Your task to perform on an android device: turn off wifi Image 0: 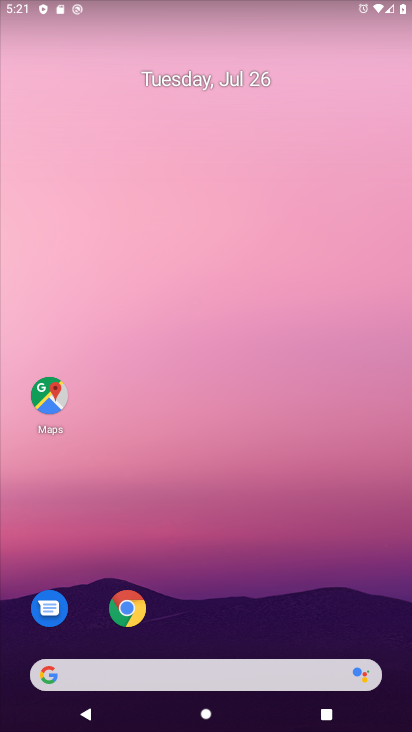
Step 0: drag from (214, 4) to (244, 618)
Your task to perform on an android device: turn off wifi Image 1: 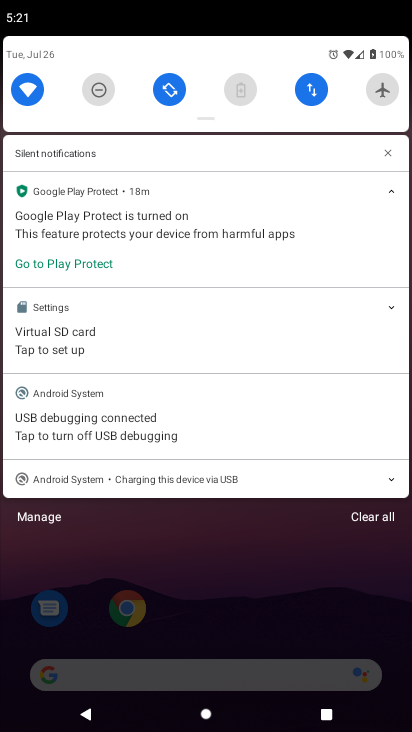
Step 1: click (29, 98)
Your task to perform on an android device: turn off wifi Image 2: 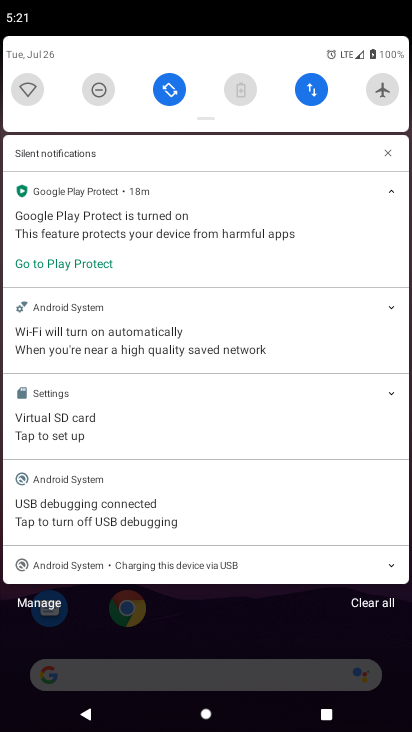
Step 2: task complete